Your task to perform on an android device: toggle notification dots Image 0: 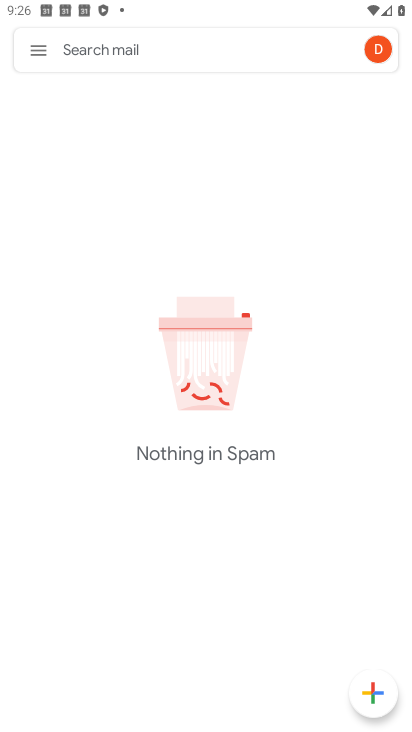
Step 0: press home button
Your task to perform on an android device: toggle notification dots Image 1: 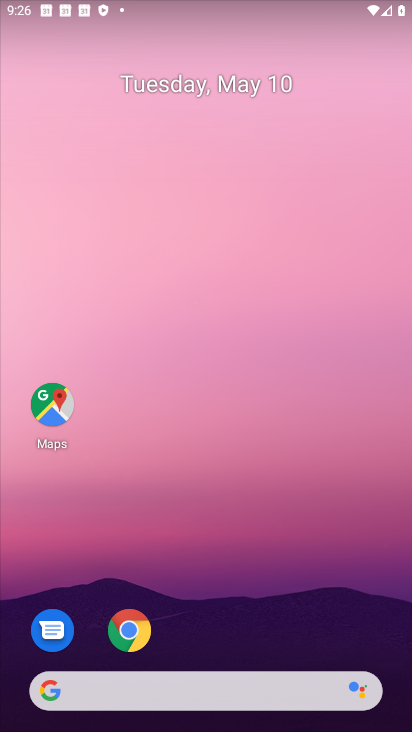
Step 1: drag from (253, 723) to (275, 0)
Your task to perform on an android device: toggle notification dots Image 2: 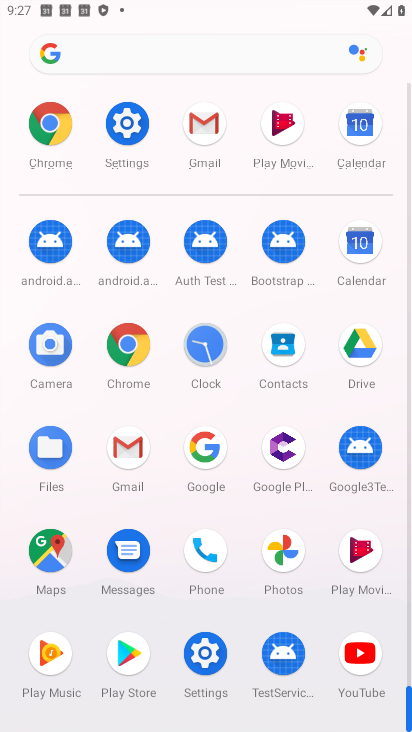
Step 2: click (139, 126)
Your task to perform on an android device: toggle notification dots Image 3: 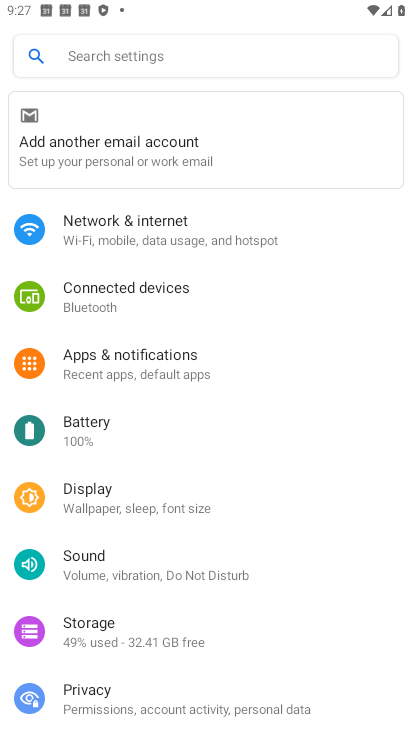
Step 3: click (154, 351)
Your task to perform on an android device: toggle notification dots Image 4: 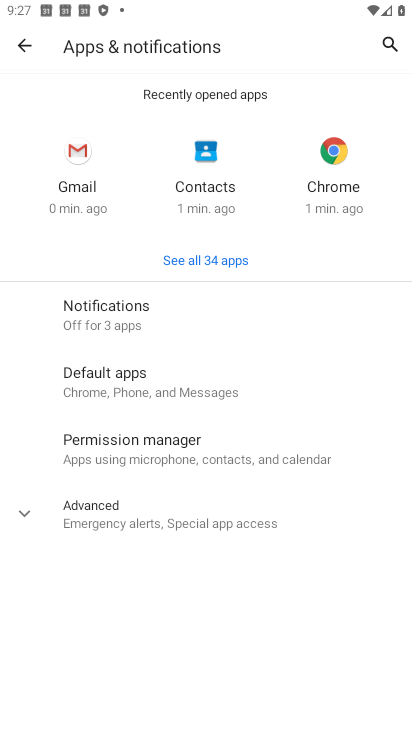
Step 4: click (141, 300)
Your task to perform on an android device: toggle notification dots Image 5: 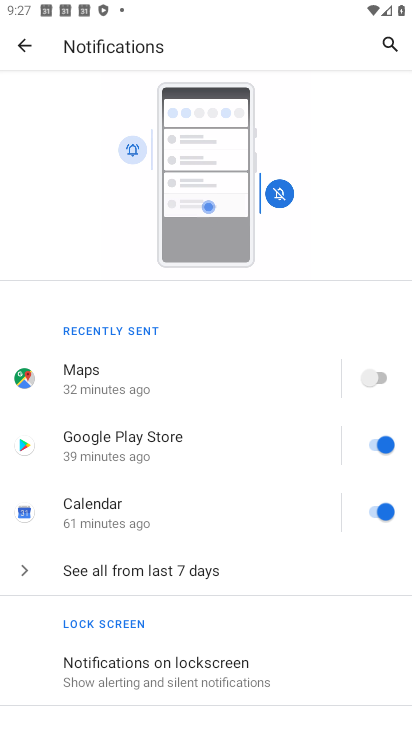
Step 5: drag from (296, 682) to (272, 19)
Your task to perform on an android device: toggle notification dots Image 6: 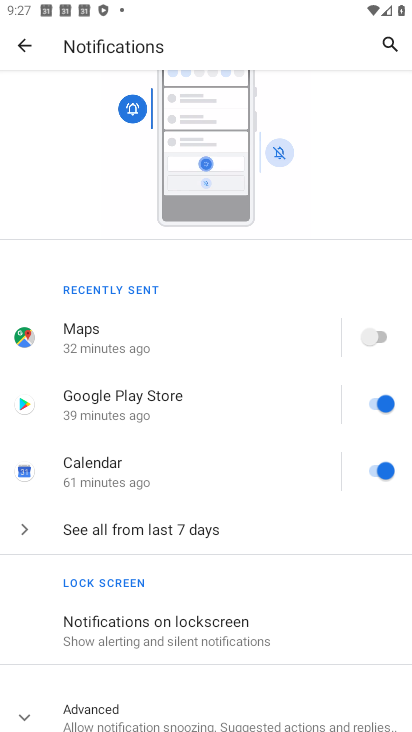
Step 6: click (256, 721)
Your task to perform on an android device: toggle notification dots Image 7: 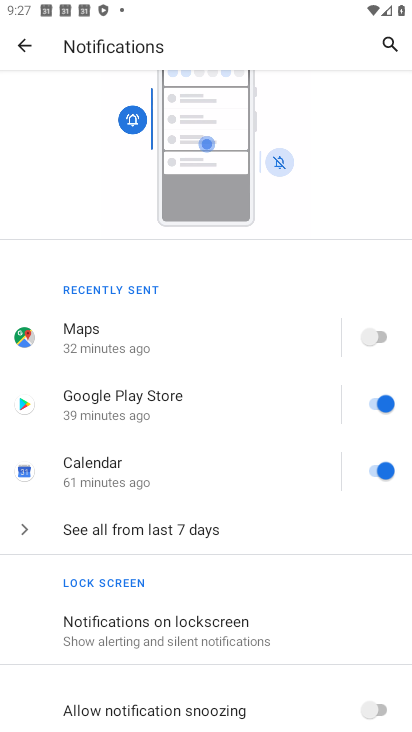
Step 7: drag from (290, 686) to (242, 157)
Your task to perform on an android device: toggle notification dots Image 8: 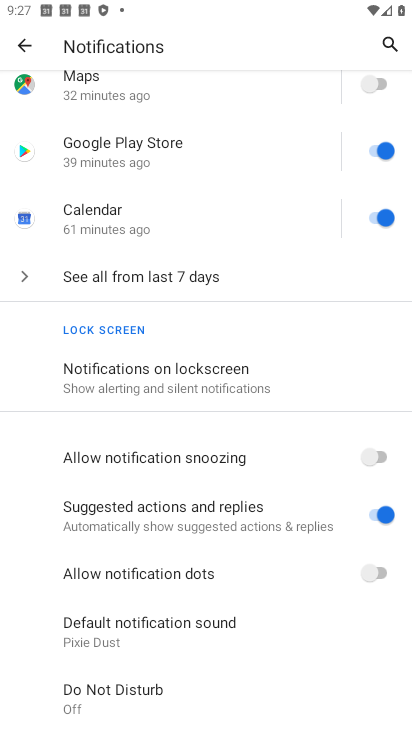
Step 8: click (383, 576)
Your task to perform on an android device: toggle notification dots Image 9: 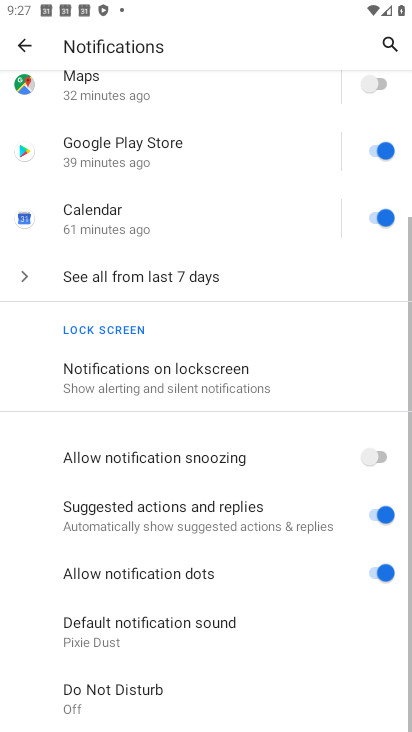
Step 9: task complete